Your task to perform on an android device: Go to Maps Image 0: 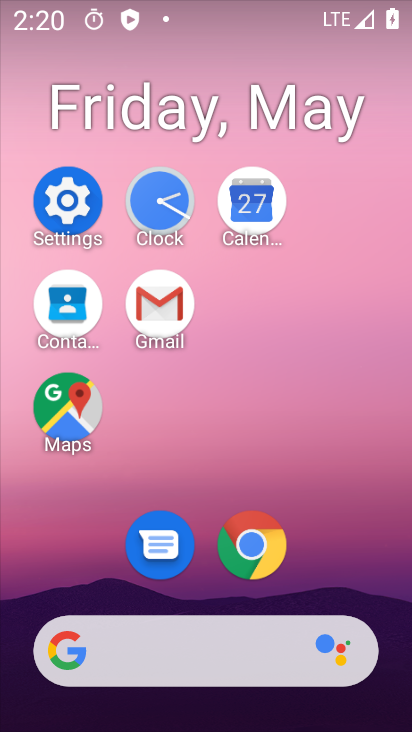
Step 0: click (84, 411)
Your task to perform on an android device: Go to Maps Image 1: 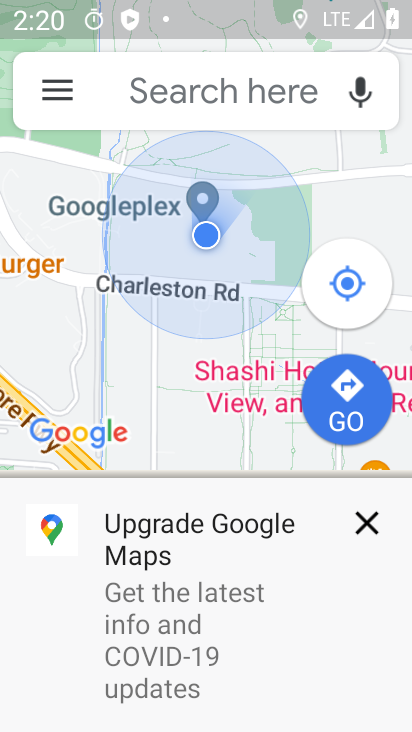
Step 1: task complete